Your task to perform on an android device: turn off priority inbox in the gmail app Image 0: 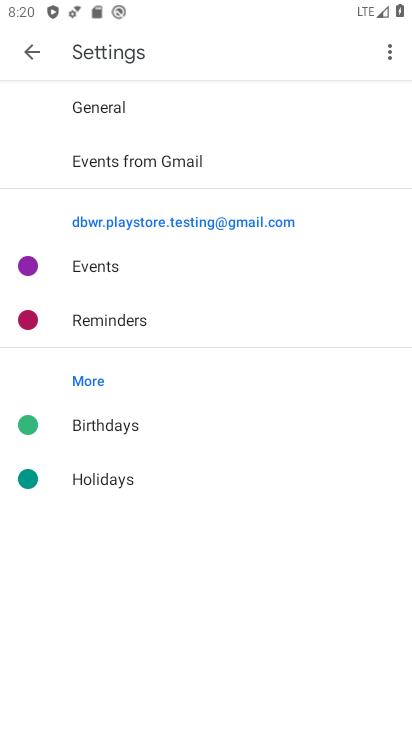
Step 0: press home button
Your task to perform on an android device: turn off priority inbox in the gmail app Image 1: 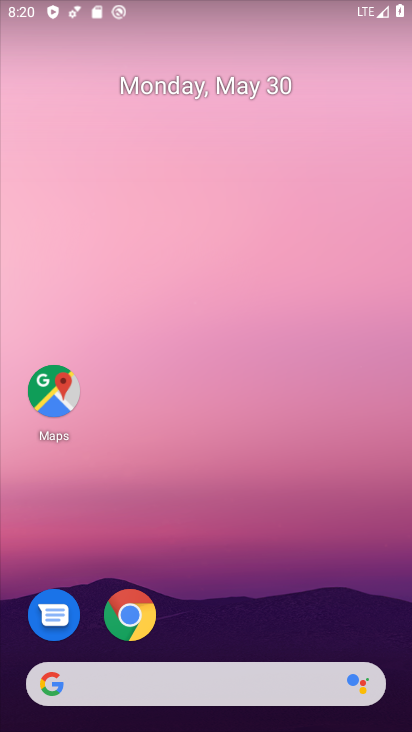
Step 1: drag from (86, 725) to (134, 237)
Your task to perform on an android device: turn off priority inbox in the gmail app Image 2: 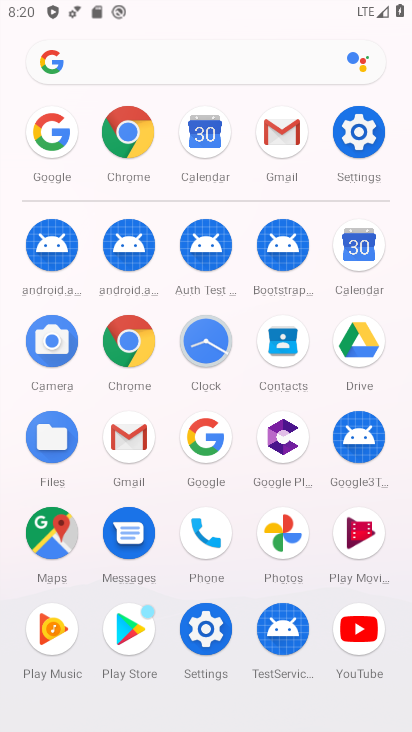
Step 2: click (126, 446)
Your task to perform on an android device: turn off priority inbox in the gmail app Image 3: 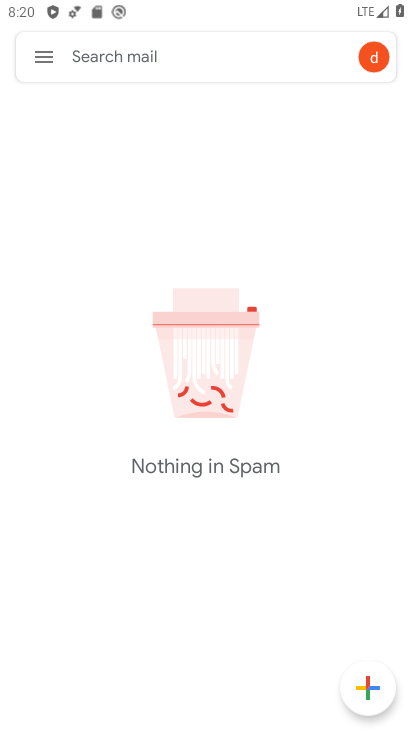
Step 3: click (24, 51)
Your task to perform on an android device: turn off priority inbox in the gmail app Image 4: 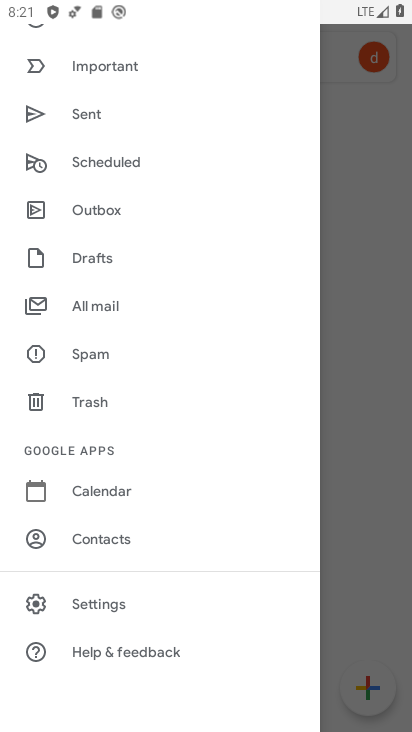
Step 4: click (99, 612)
Your task to perform on an android device: turn off priority inbox in the gmail app Image 5: 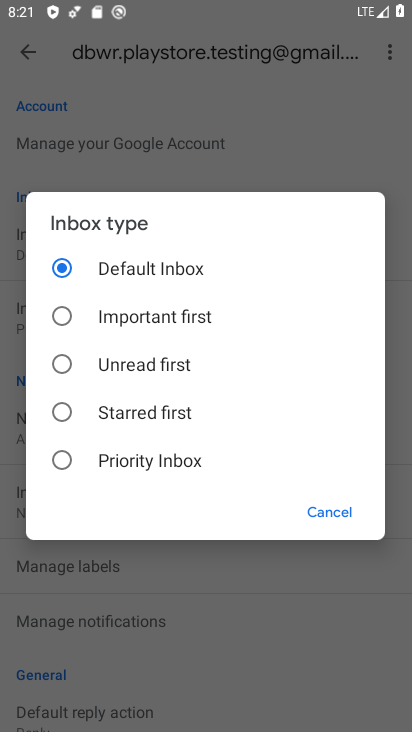
Step 5: click (290, 515)
Your task to perform on an android device: turn off priority inbox in the gmail app Image 6: 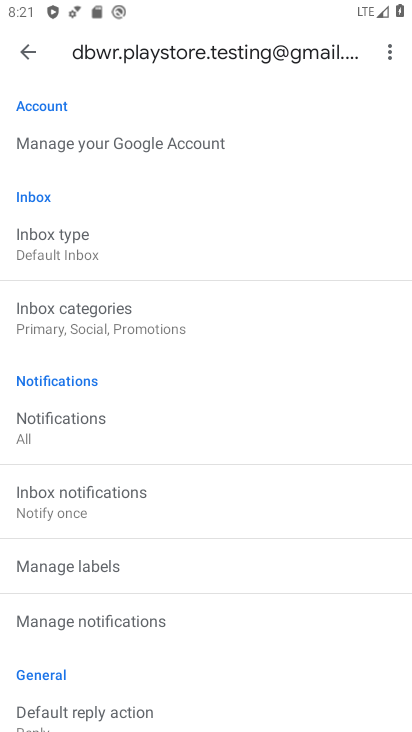
Step 6: drag from (177, 628) to (199, 222)
Your task to perform on an android device: turn off priority inbox in the gmail app Image 7: 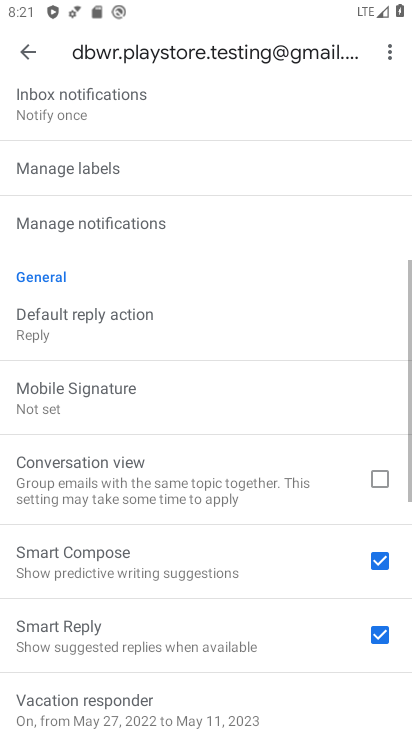
Step 7: drag from (91, 709) to (63, 421)
Your task to perform on an android device: turn off priority inbox in the gmail app Image 8: 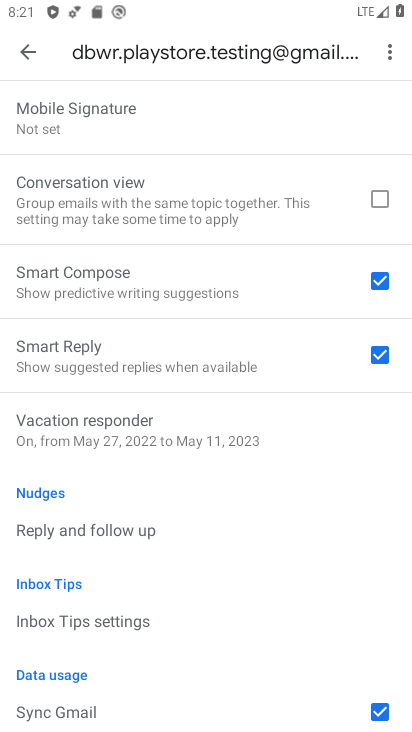
Step 8: drag from (201, 105) to (209, 616)
Your task to perform on an android device: turn off priority inbox in the gmail app Image 9: 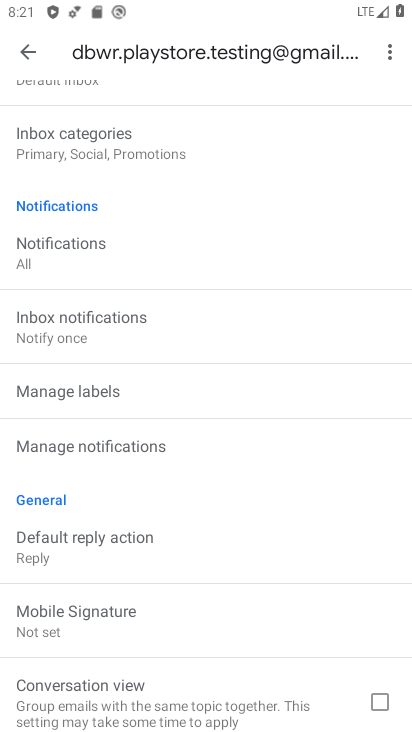
Step 9: drag from (146, 187) to (109, 674)
Your task to perform on an android device: turn off priority inbox in the gmail app Image 10: 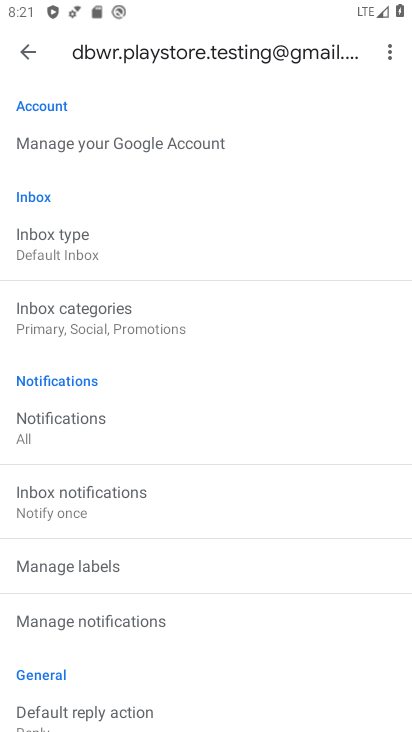
Step 10: click (96, 270)
Your task to perform on an android device: turn off priority inbox in the gmail app Image 11: 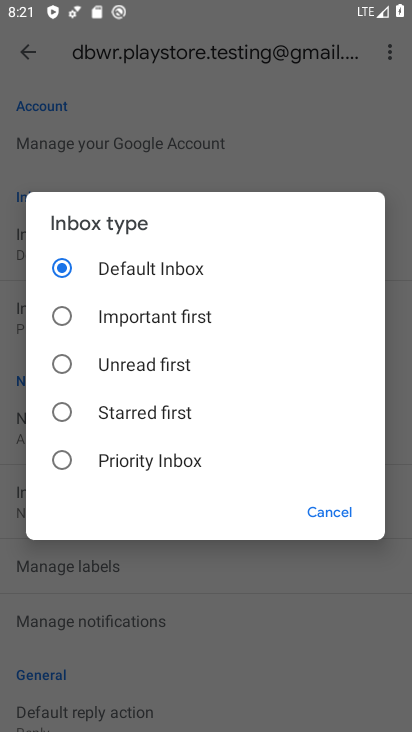
Step 11: task complete